Your task to perform on an android device: install app "Grab" Image 0: 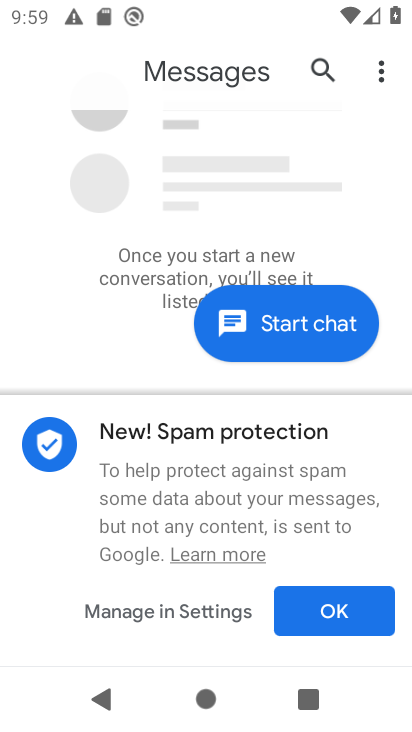
Step 0: press home button
Your task to perform on an android device: install app "Grab" Image 1: 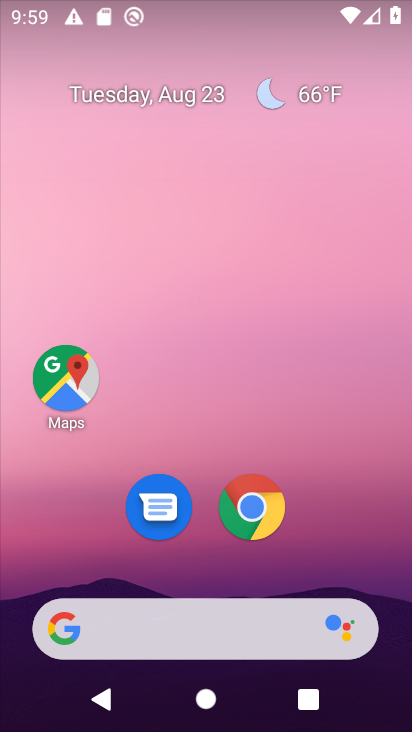
Step 1: drag from (385, 597) to (340, 83)
Your task to perform on an android device: install app "Grab" Image 2: 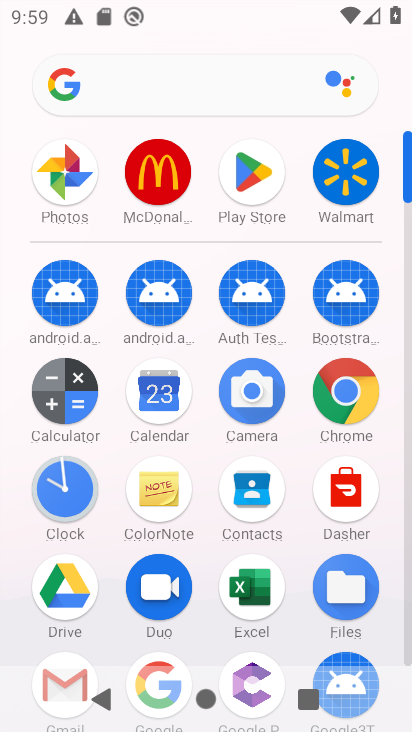
Step 2: click (410, 649)
Your task to perform on an android device: install app "Grab" Image 3: 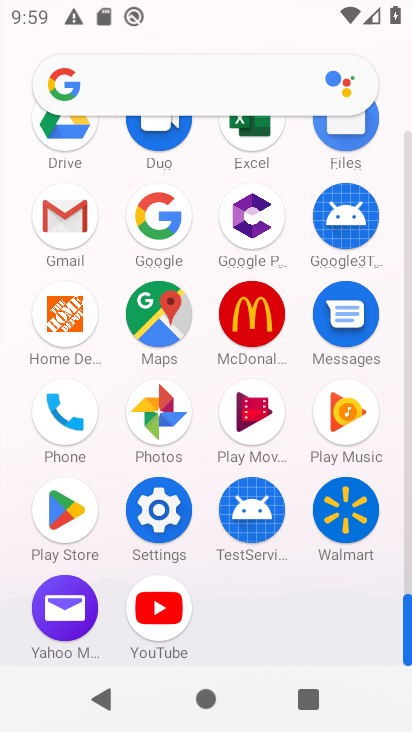
Step 3: click (67, 508)
Your task to perform on an android device: install app "Grab" Image 4: 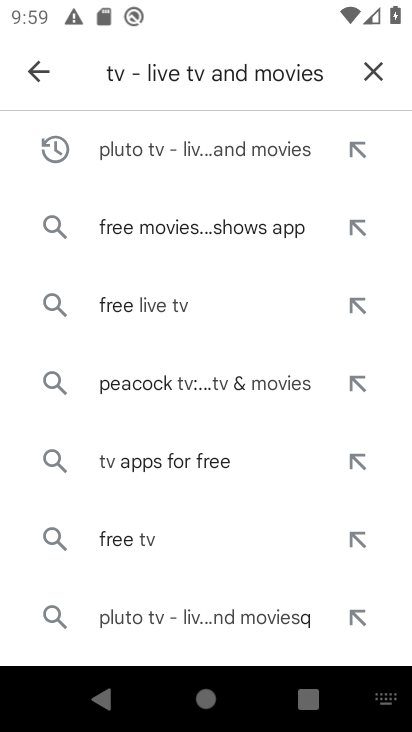
Step 4: click (370, 67)
Your task to perform on an android device: install app "Grab" Image 5: 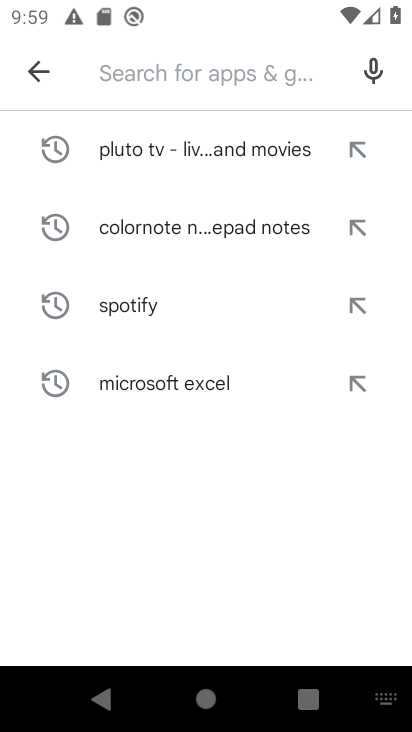
Step 5: type "Gra"
Your task to perform on an android device: install app "Grab" Image 6: 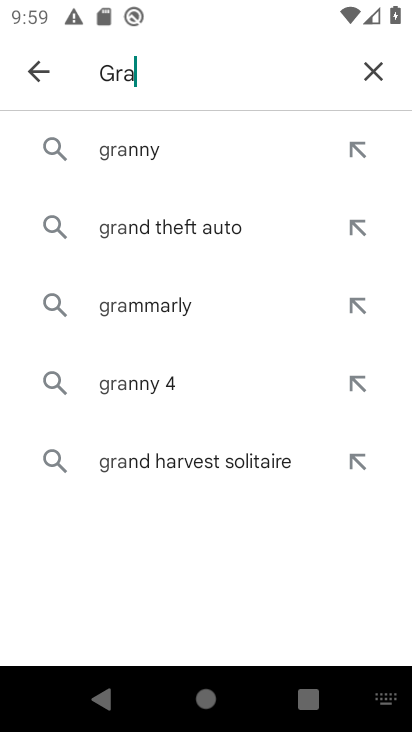
Step 6: type "b"
Your task to perform on an android device: install app "Grab" Image 7: 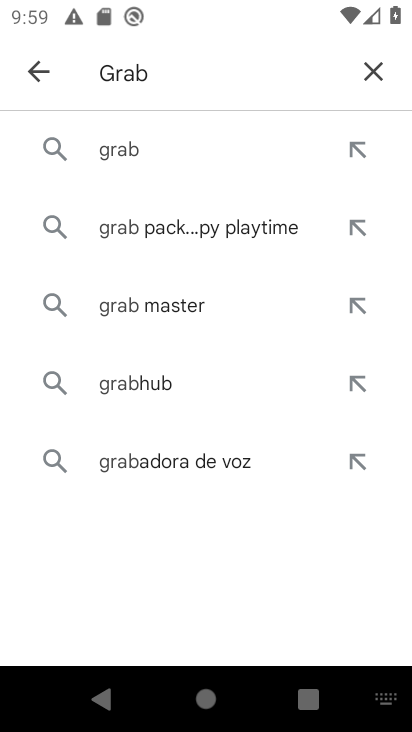
Step 7: click (123, 145)
Your task to perform on an android device: install app "Grab" Image 8: 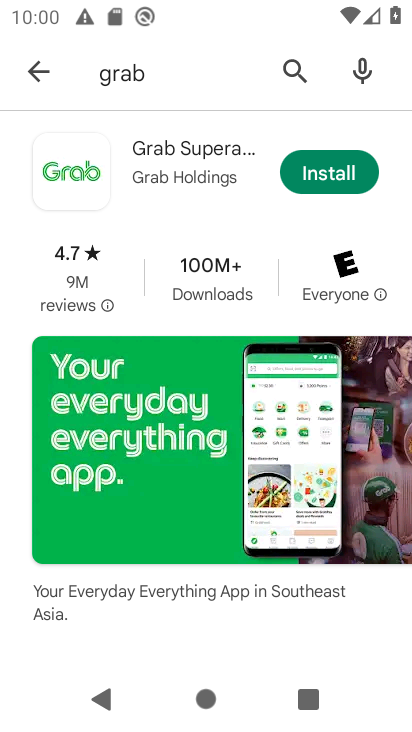
Step 8: click (327, 169)
Your task to perform on an android device: install app "Grab" Image 9: 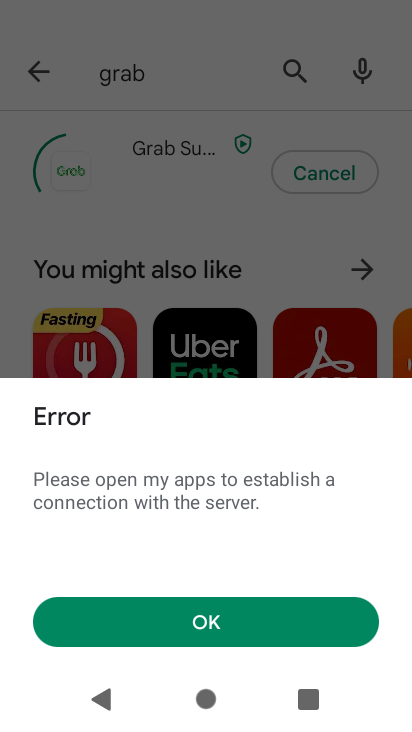
Step 9: click (152, 170)
Your task to perform on an android device: install app "Grab" Image 10: 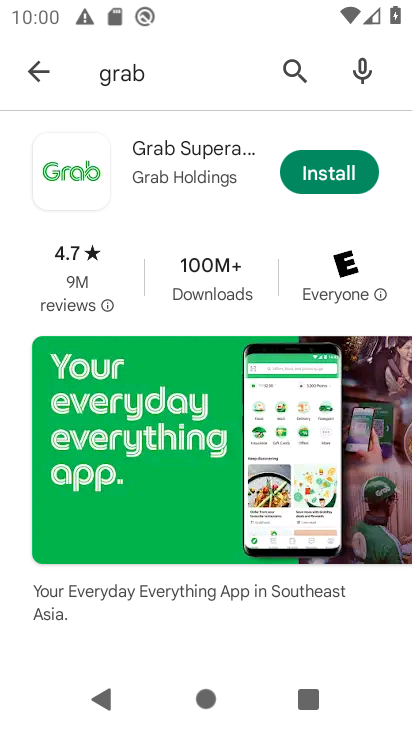
Step 10: click (144, 152)
Your task to perform on an android device: install app "Grab" Image 11: 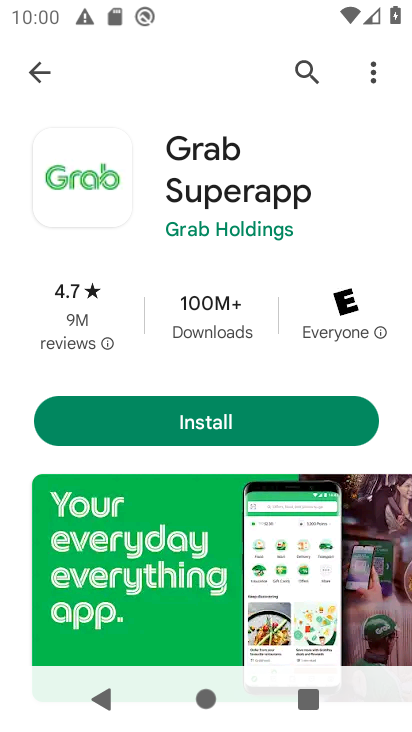
Step 11: click (215, 421)
Your task to perform on an android device: install app "Grab" Image 12: 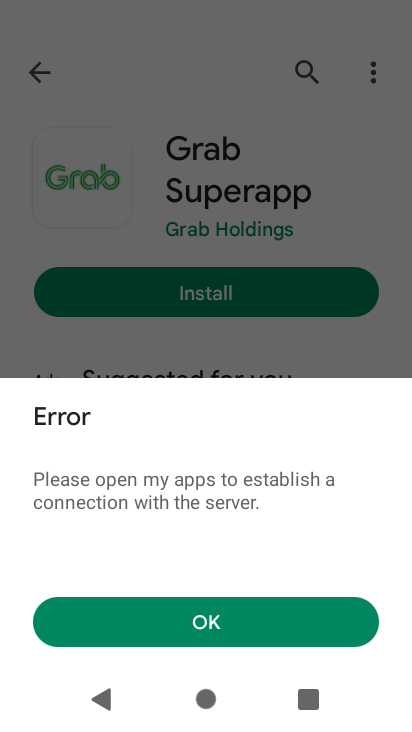
Step 12: click (201, 620)
Your task to perform on an android device: install app "Grab" Image 13: 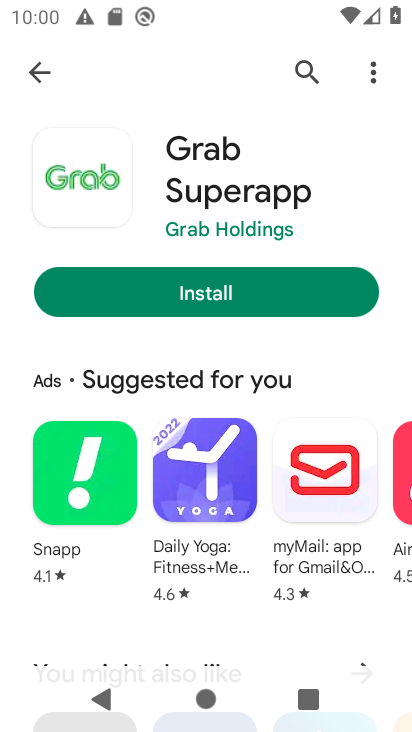
Step 13: task complete